Your task to perform on an android device: toggle notification dots Image 0: 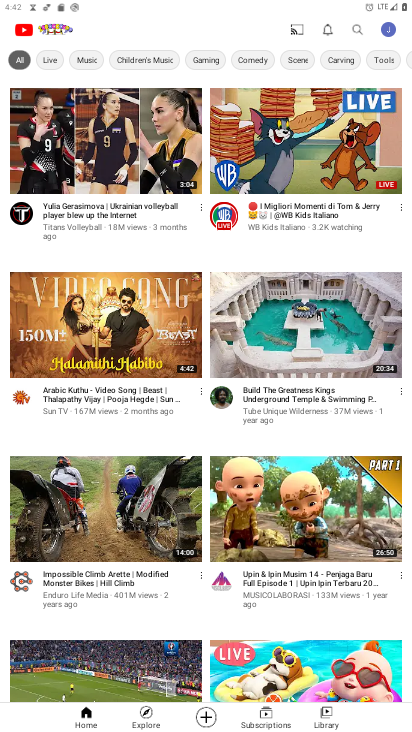
Step 0: press home button
Your task to perform on an android device: toggle notification dots Image 1: 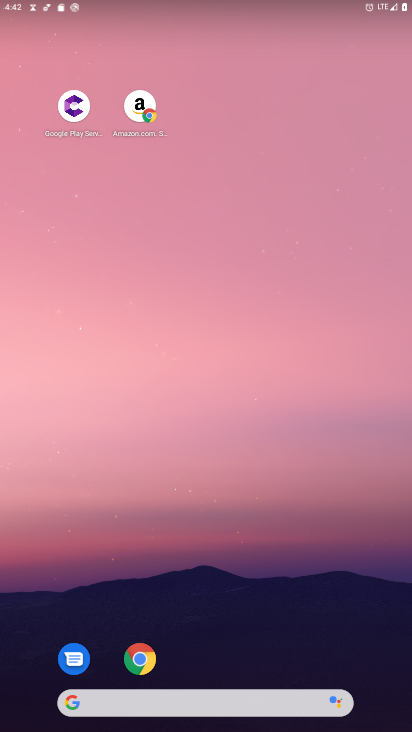
Step 1: drag from (266, 689) to (198, 3)
Your task to perform on an android device: toggle notification dots Image 2: 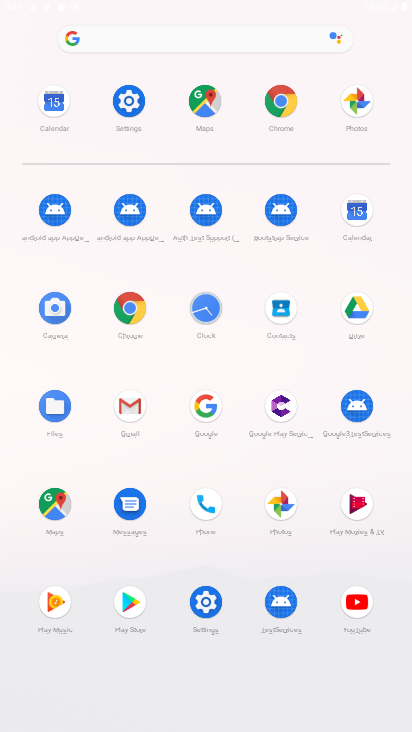
Step 2: click (131, 95)
Your task to perform on an android device: toggle notification dots Image 3: 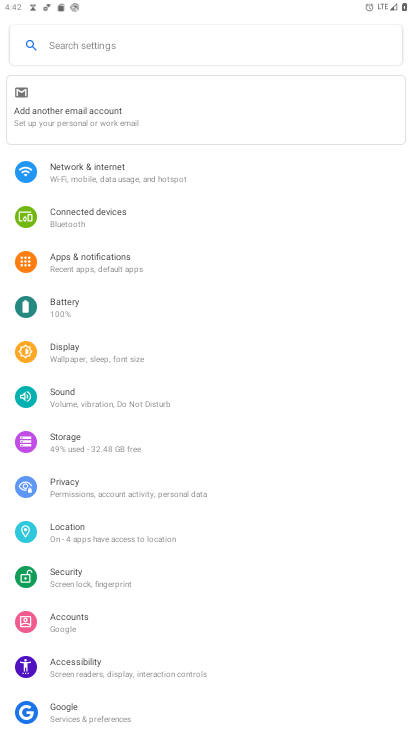
Step 3: click (107, 263)
Your task to perform on an android device: toggle notification dots Image 4: 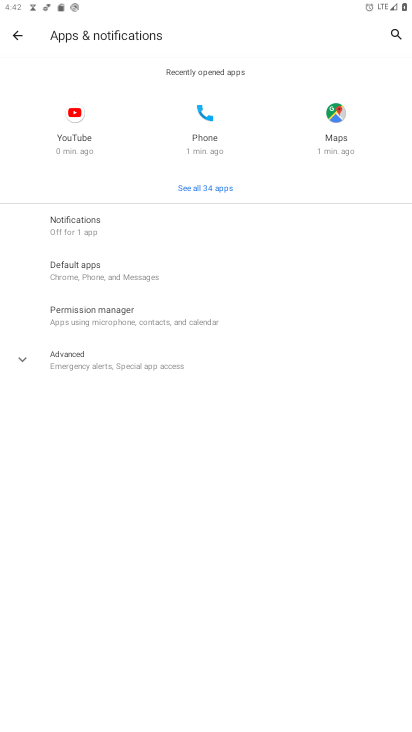
Step 4: click (71, 233)
Your task to perform on an android device: toggle notification dots Image 5: 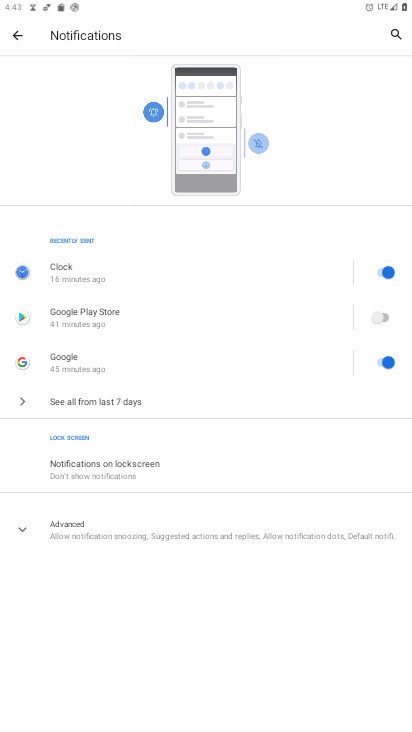
Step 5: click (110, 524)
Your task to perform on an android device: toggle notification dots Image 6: 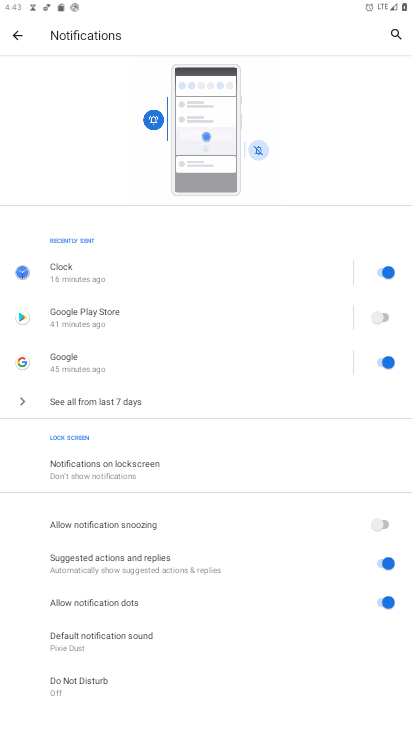
Step 6: click (384, 602)
Your task to perform on an android device: toggle notification dots Image 7: 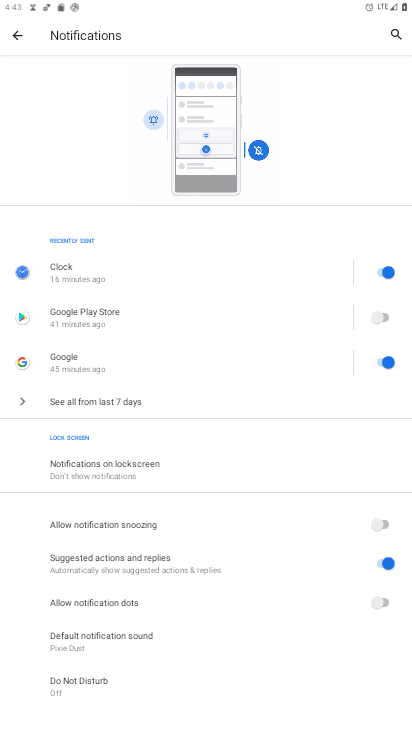
Step 7: task complete